Your task to perform on an android device: toggle javascript in the chrome app Image 0: 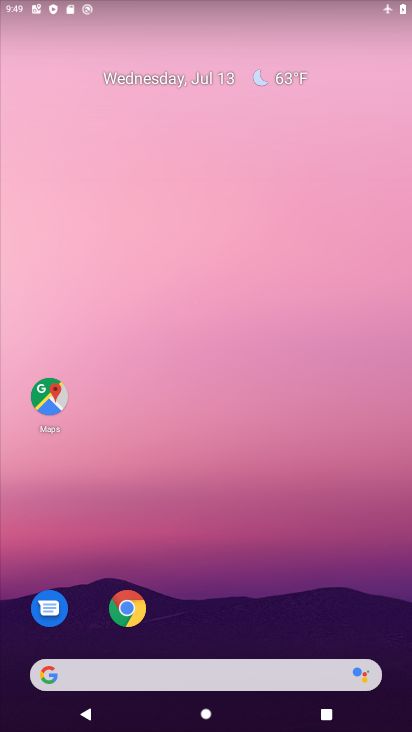
Step 0: drag from (205, 632) to (241, 70)
Your task to perform on an android device: toggle javascript in the chrome app Image 1: 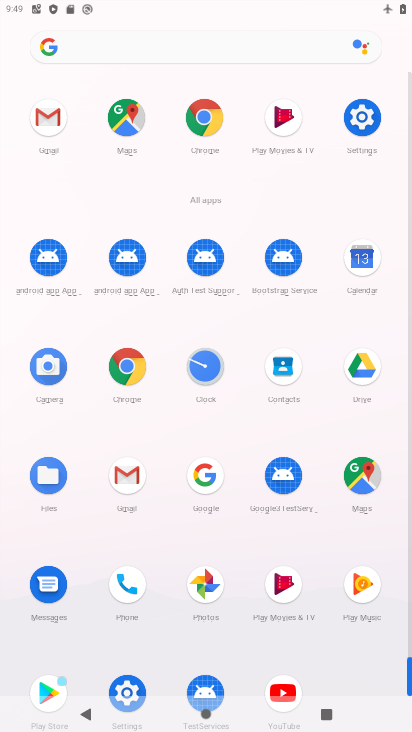
Step 1: click (123, 369)
Your task to perform on an android device: toggle javascript in the chrome app Image 2: 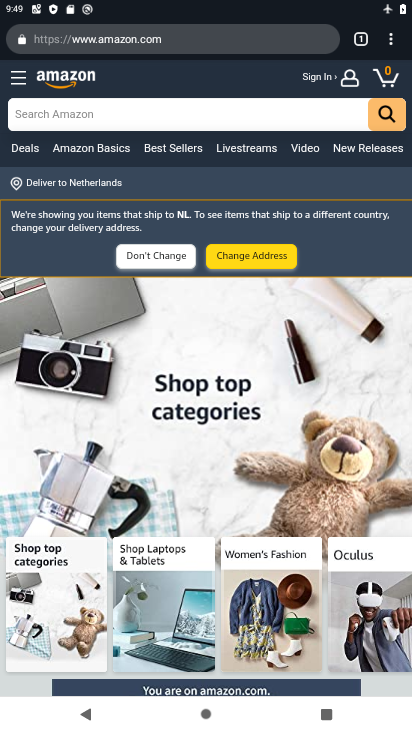
Step 2: click (390, 46)
Your task to perform on an android device: toggle javascript in the chrome app Image 3: 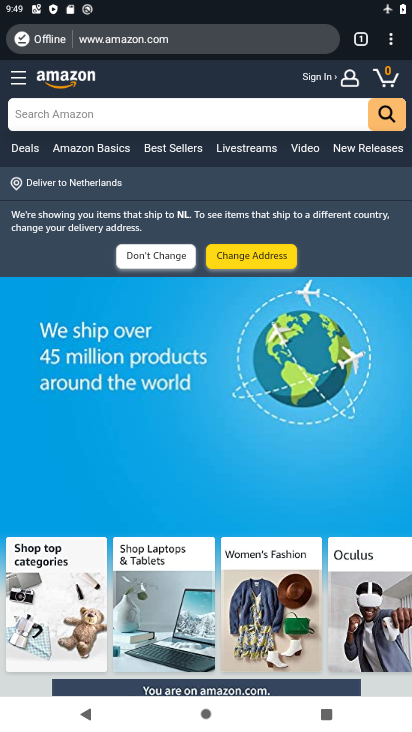
Step 3: click (389, 37)
Your task to perform on an android device: toggle javascript in the chrome app Image 4: 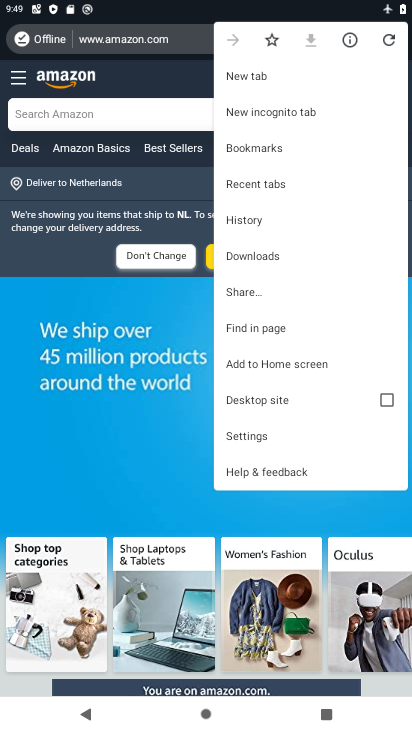
Step 4: click (256, 437)
Your task to perform on an android device: toggle javascript in the chrome app Image 5: 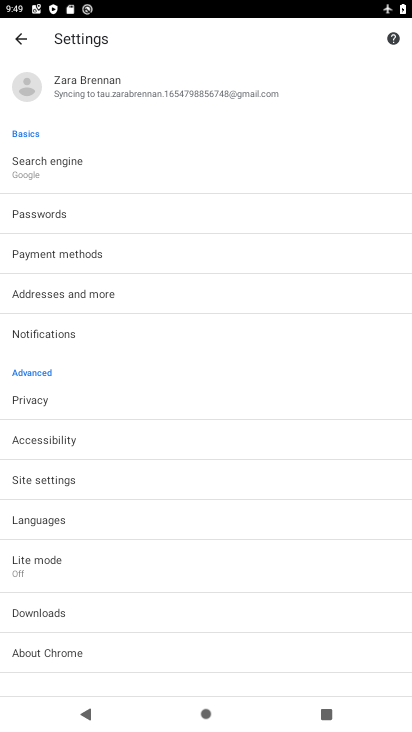
Step 5: click (53, 476)
Your task to perform on an android device: toggle javascript in the chrome app Image 6: 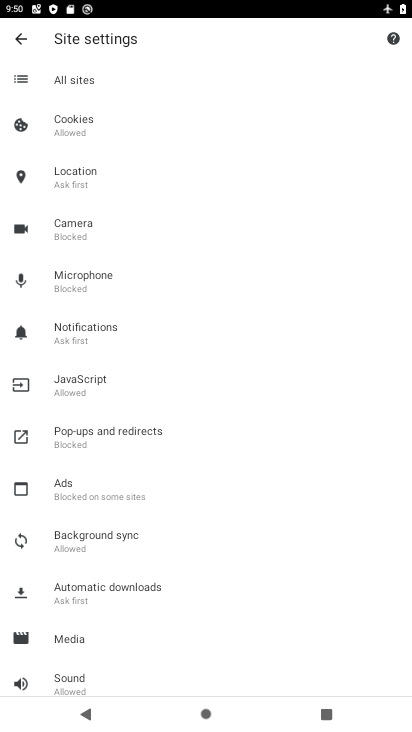
Step 6: click (104, 383)
Your task to perform on an android device: toggle javascript in the chrome app Image 7: 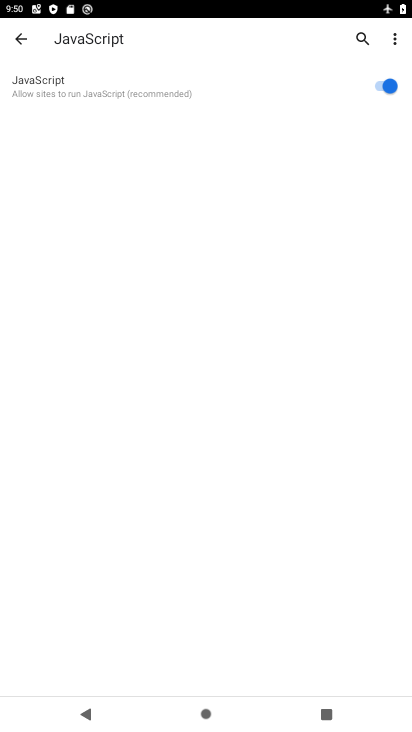
Step 7: click (372, 82)
Your task to perform on an android device: toggle javascript in the chrome app Image 8: 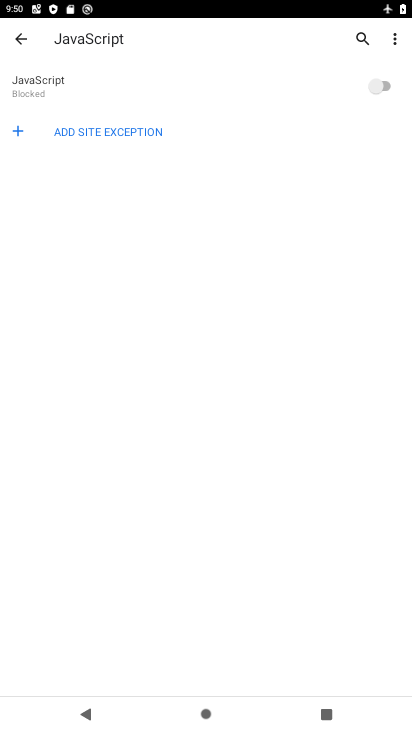
Step 8: task complete